Your task to perform on an android device: toggle translation in the chrome app Image 0: 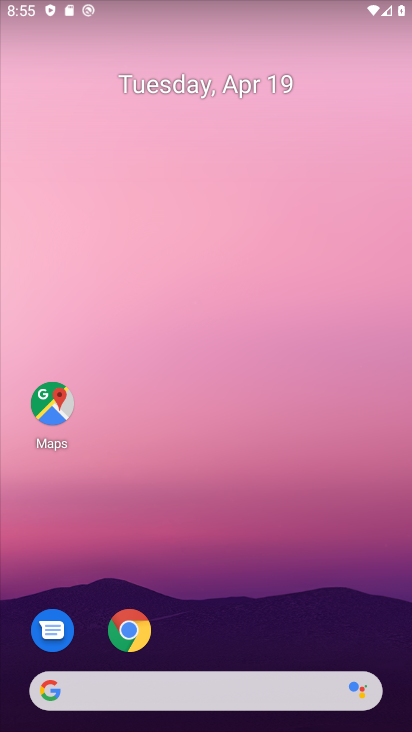
Step 0: click (130, 636)
Your task to perform on an android device: toggle translation in the chrome app Image 1: 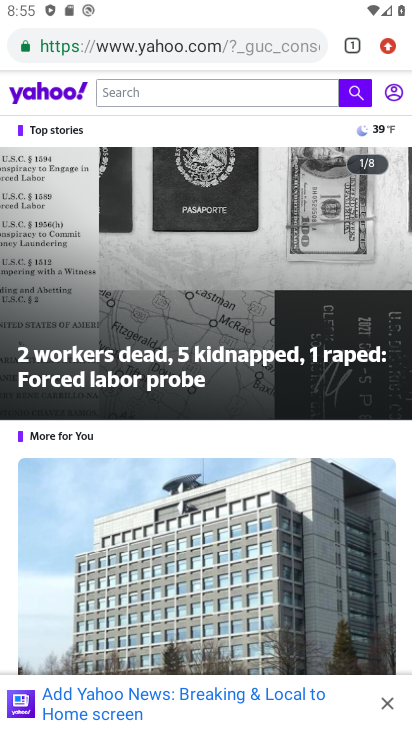
Step 1: drag from (395, 47) to (272, 608)
Your task to perform on an android device: toggle translation in the chrome app Image 2: 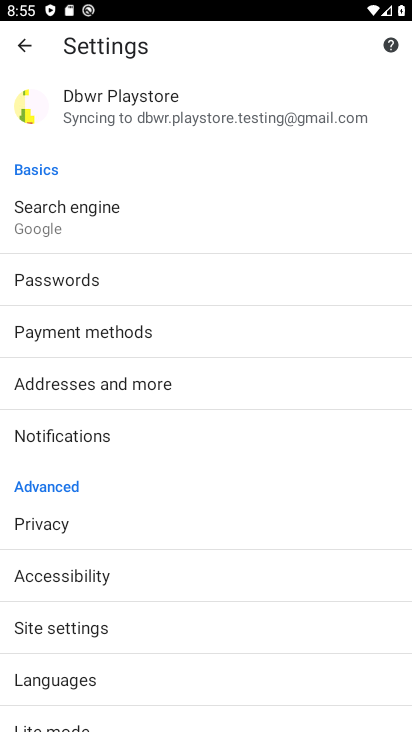
Step 2: drag from (211, 553) to (292, 365)
Your task to perform on an android device: toggle translation in the chrome app Image 3: 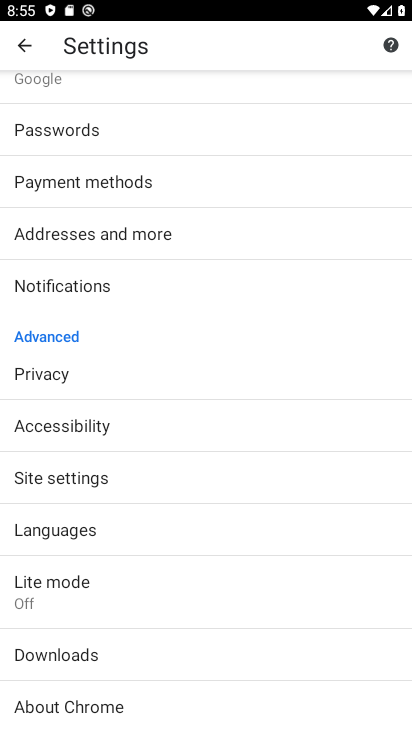
Step 3: click (153, 528)
Your task to perform on an android device: toggle translation in the chrome app Image 4: 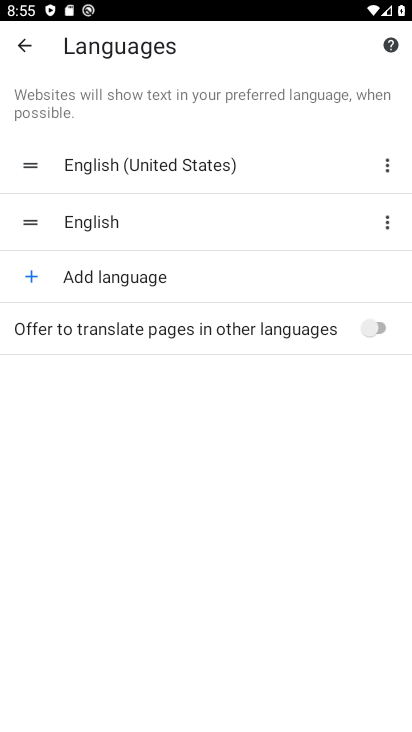
Step 4: click (397, 325)
Your task to perform on an android device: toggle translation in the chrome app Image 5: 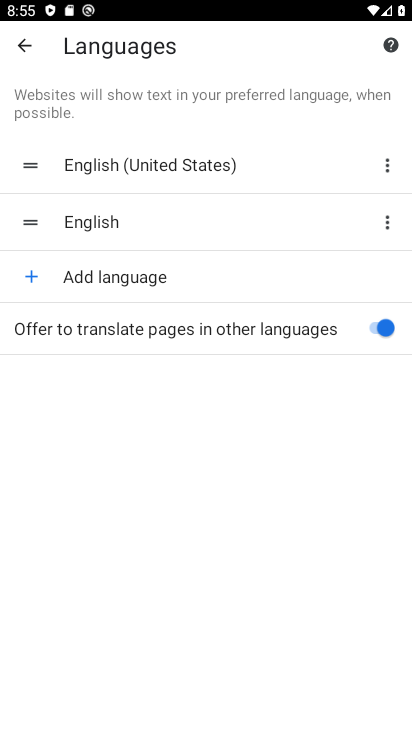
Step 5: task complete